Your task to perform on an android device: Go to notification settings Image 0: 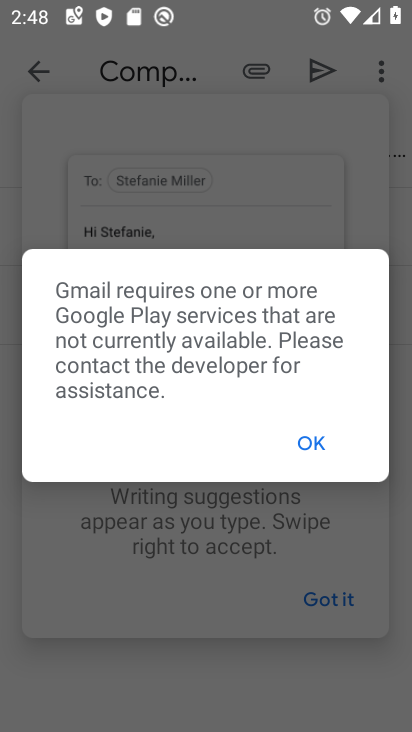
Step 0: press home button
Your task to perform on an android device: Go to notification settings Image 1: 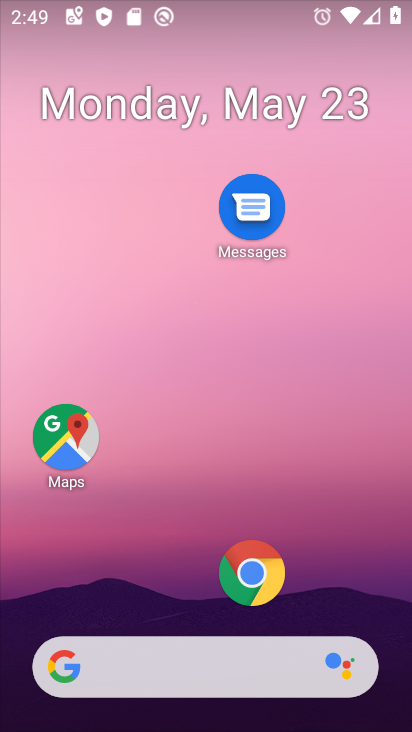
Step 1: drag from (246, 675) to (260, 0)
Your task to perform on an android device: Go to notification settings Image 2: 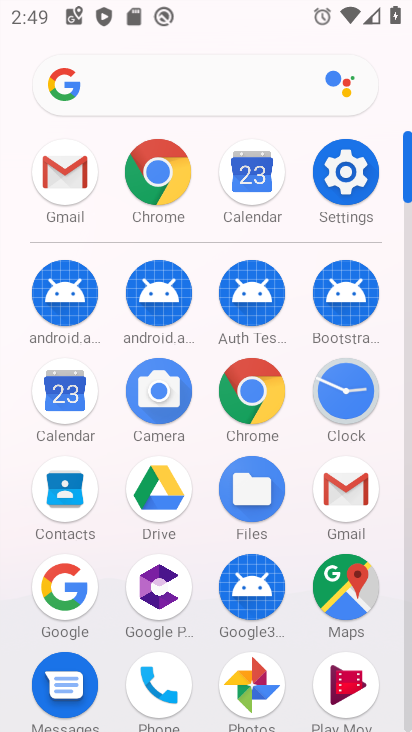
Step 2: click (335, 184)
Your task to perform on an android device: Go to notification settings Image 3: 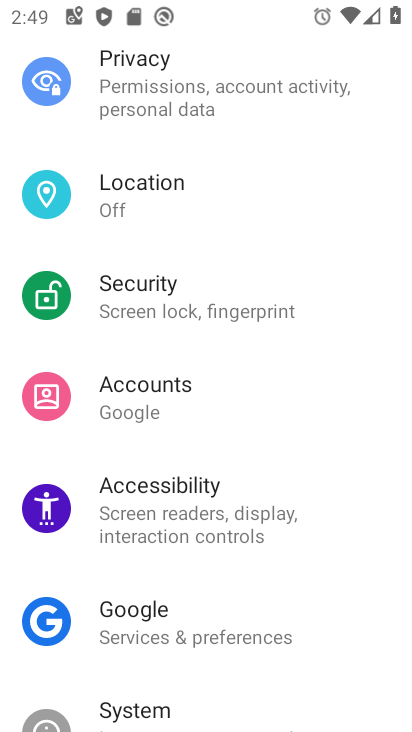
Step 3: drag from (221, 171) to (210, 415)
Your task to perform on an android device: Go to notification settings Image 4: 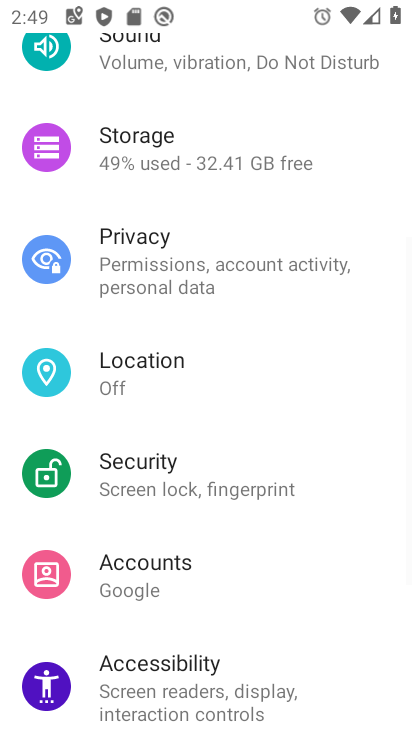
Step 4: drag from (191, 316) to (164, 730)
Your task to perform on an android device: Go to notification settings Image 5: 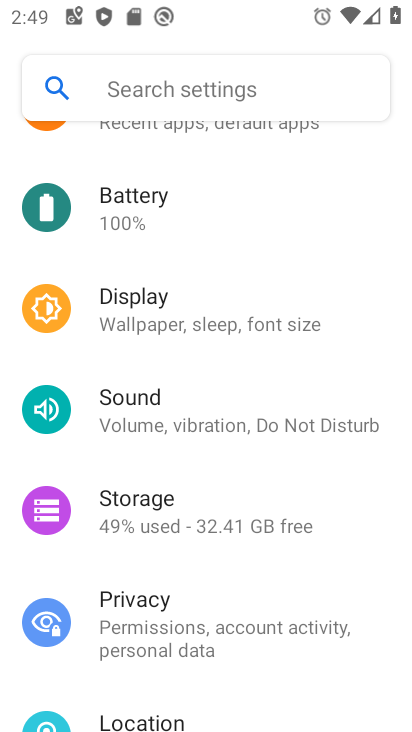
Step 5: drag from (220, 259) to (217, 682)
Your task to perform on an android device: Go to notification settings Image 6: 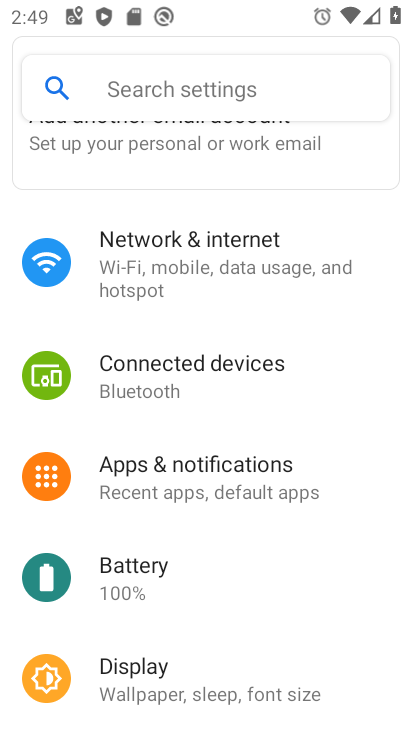
Step 6: click (195, 277)
Your task to perform on an android device: Go to notification settings Image 7: 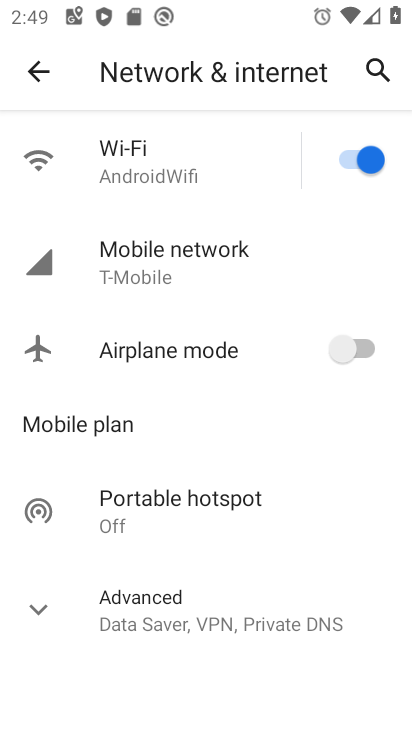
Step 7: press back button
Your task to perform on an android device: Go to notification settings Image 8: 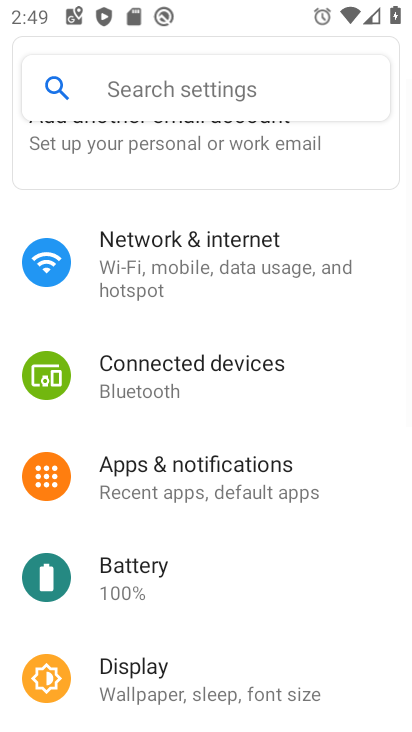
Step 8: click (184, 472)
Your task to perform on an android device: Go to notification settings Image 9: 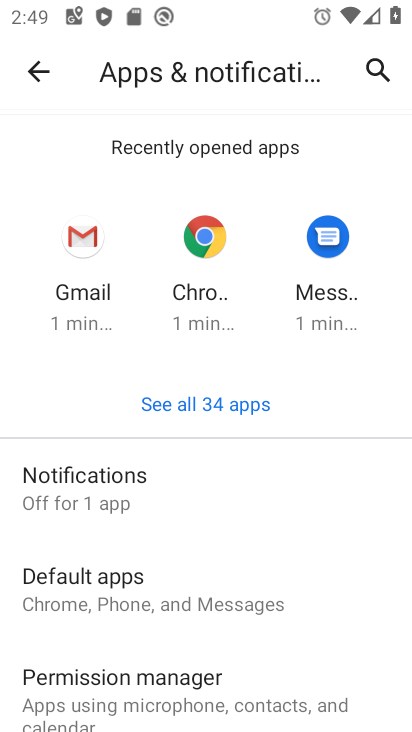
Step 9: task complete